Your task to perform on an android device: turn vacation reply on in the gmail app Image 0: 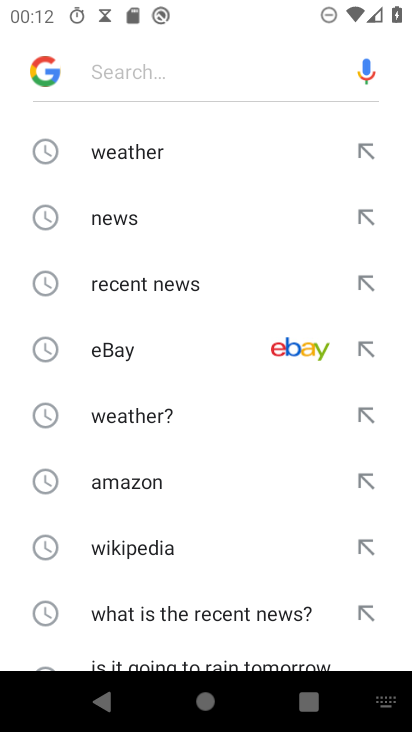
Step 0: press home button
Your task to perform on an android device: turn vacation reply on in the gmail app Image 1: 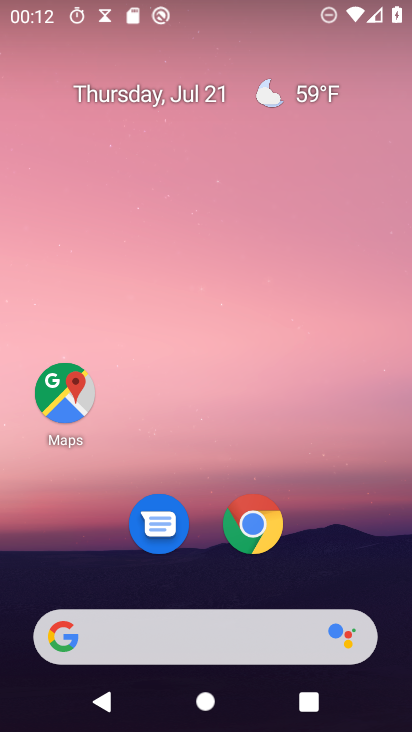
Step 1: drag from (204, 635) to (299, 242)
Your task to perform on an android device: turn vacation reply on in the gmail app Image 2: 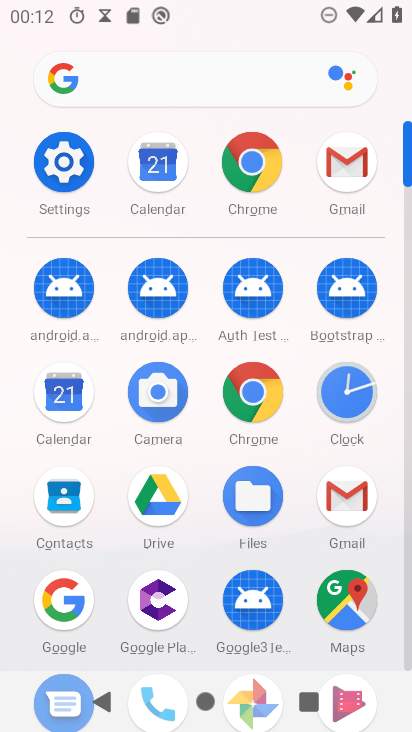
Step 2: click (345, 175)
Your task to perform on an android device: turn vacation reply on in the gmail app Image 3: 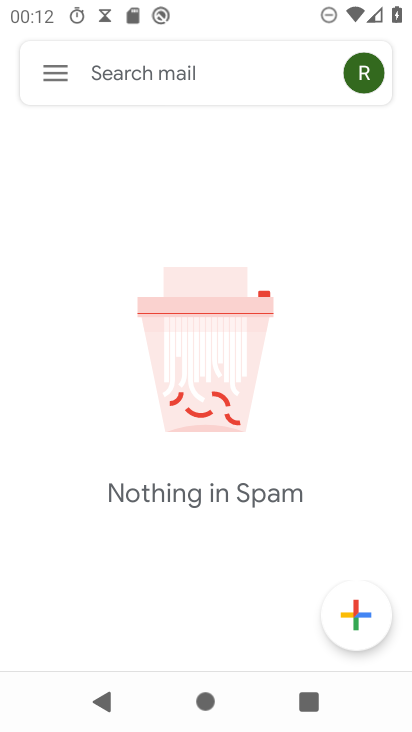
Step 3: click (57, 69)
Your task to perform on an android device: turn vacation reply on in the gmail app Image 4: 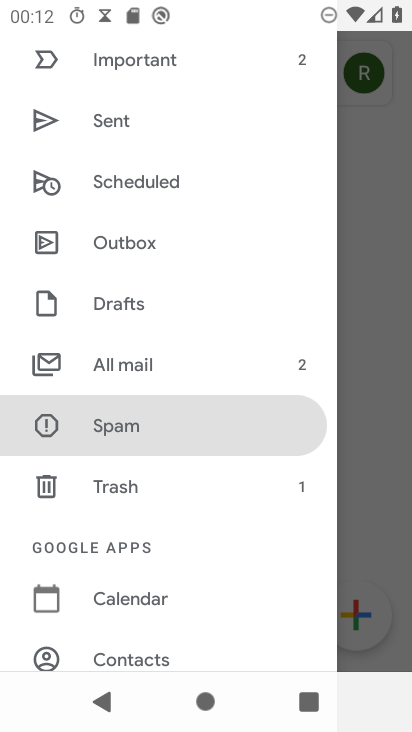
Step 4: drag from (172, 629) to (261, 156)
Your task to perform on an android device: turn vacation reply on in the gmail app Image 5: 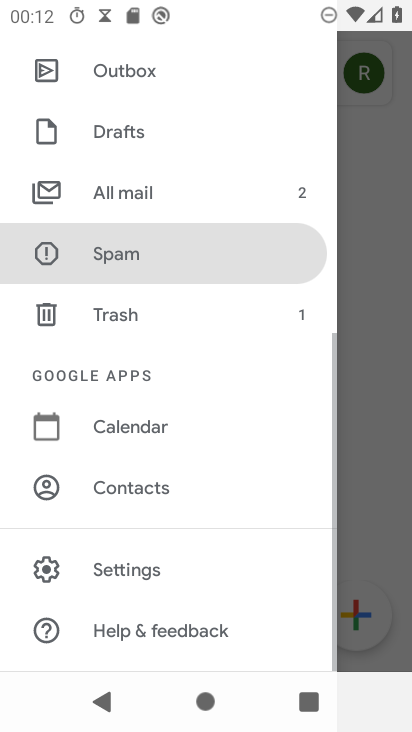
Step 5: click (135, 568)
Your task to perform on an android device: turn vacation reply on in the gmail app Image 6: 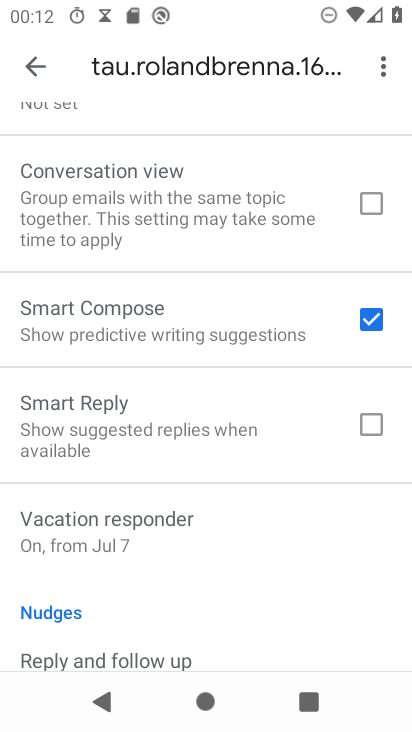
Step 6: click (172, 515)
Your task to perform on an android device: turn vacation reply on in the gmail app Image 7: 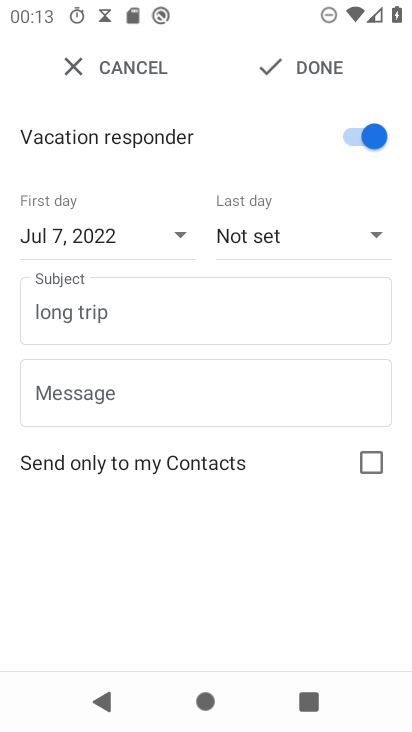
Step 7: task complete